Your task to perform on an android device: Do I have any events this weekend? Image 0: 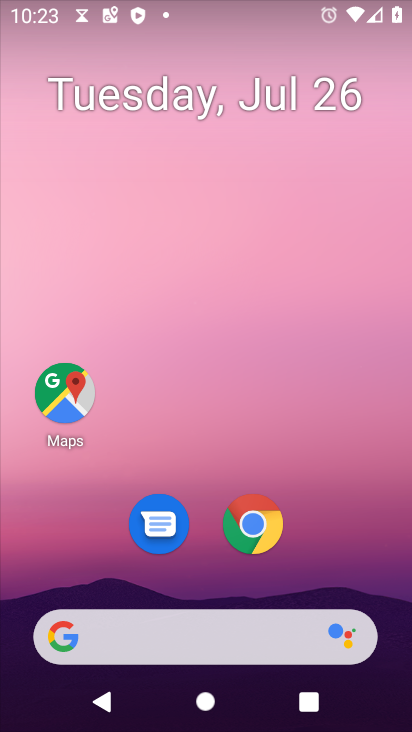
Step 0: click (149, 630)
Your task to perform on an android device: Do I have any events this weekend? Image 1: 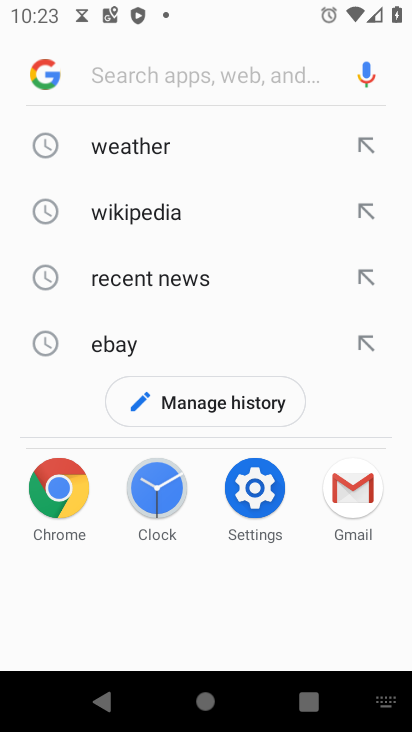
Step 1: press home button
Your task to perform on an android device: Do I have any events this weekend? Image 2: 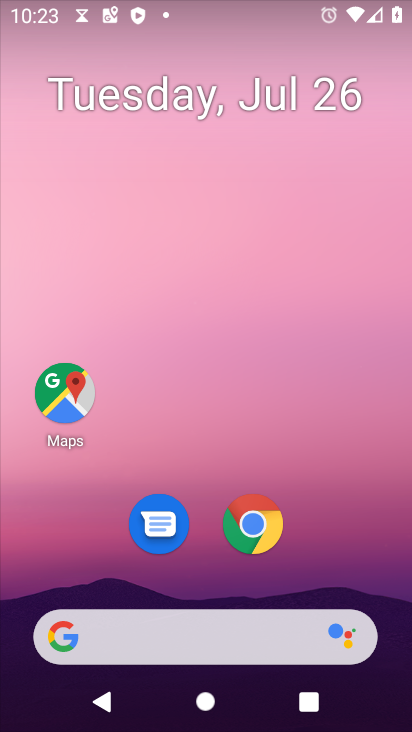
Step 2: drag from (168, 624) to (206, 147)
Your task to perform on an android device: Do I have any events this weekend? Image 3: 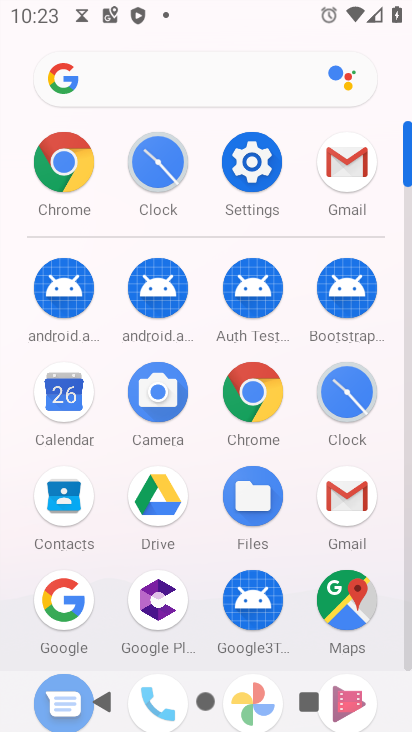
Step 3: click (64, 394)
Your task to perform on an android device: Do I have any events this weekend? Image 4: 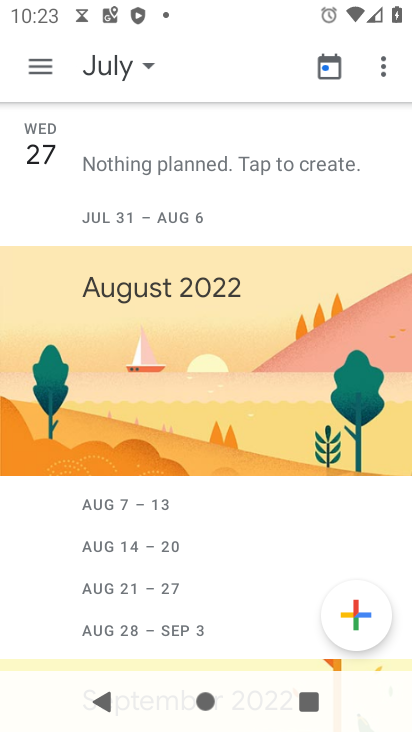
Step 4: click (117, 64)
Your task to perform on an android device: Do I have any events this weekend? Image 5: 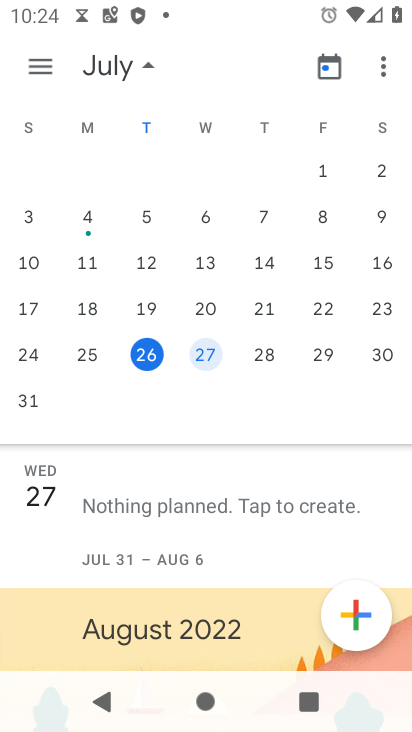
Step 5: click (380, 350)
Your task to perform on an android device: Do I have any events this weekend? Image 6: 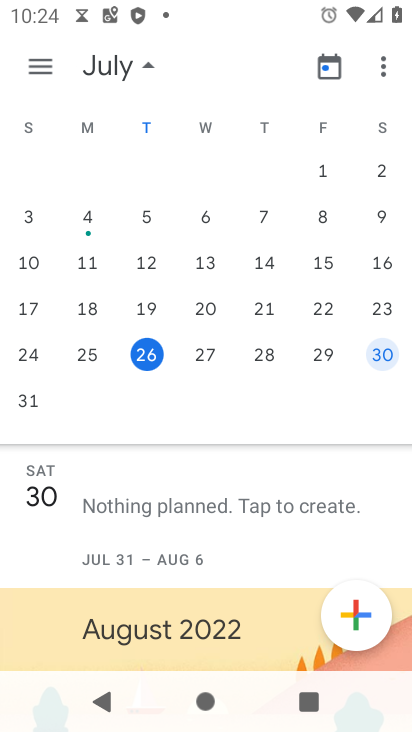
Step 6: click (37, 60)
Your task to perform on an android device: Do I have any events this weekend? Image 7: 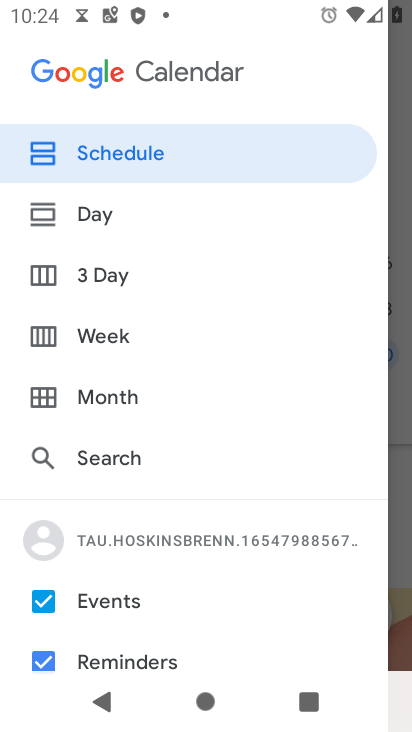
Step 7: click (99, 215)
Your task to perform on an android device: Do I have any events this weekend? Image 8: 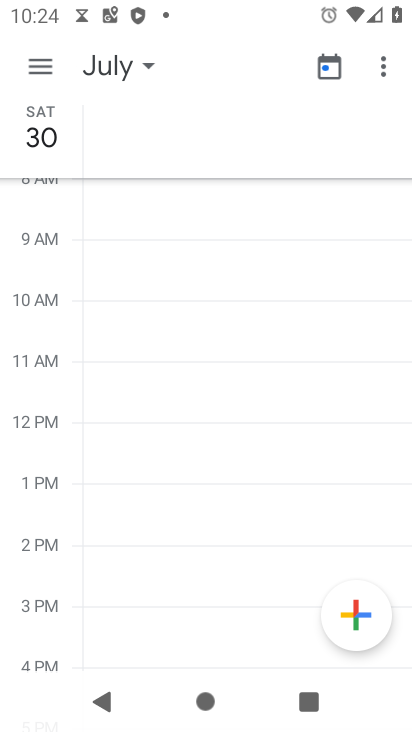
Step 8: click (32, 74)
Your task to perform on an android device: Do I have any events this weekend? Image 9: 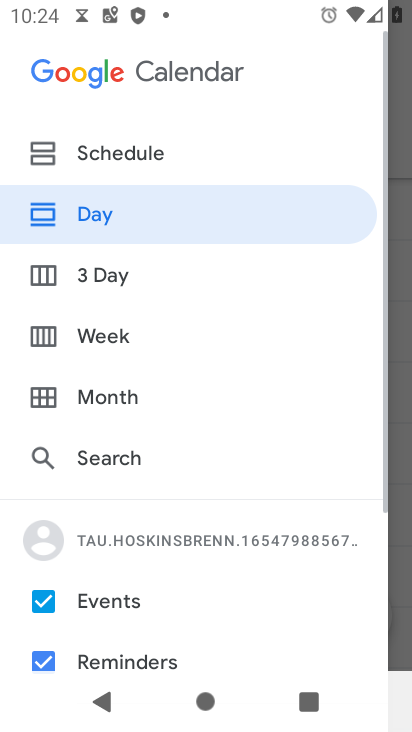
Step 9: click (116, 148)
Your task to perform on an android device: Do I have any events this weekend? Image 10: 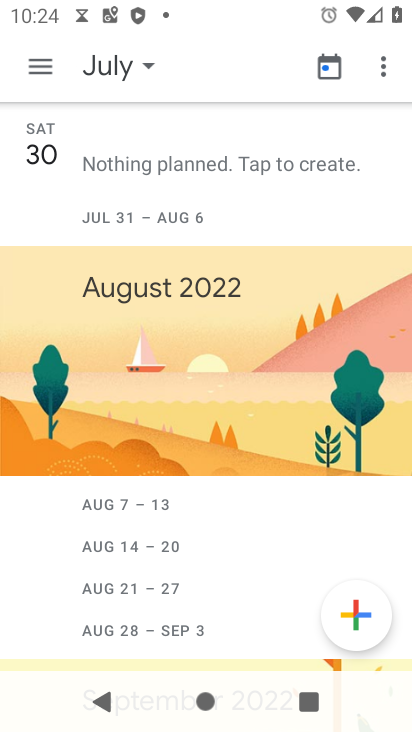
Step 10: task complete